Your task to perform on an android device: Show me the alarms in the clock app Image 0: 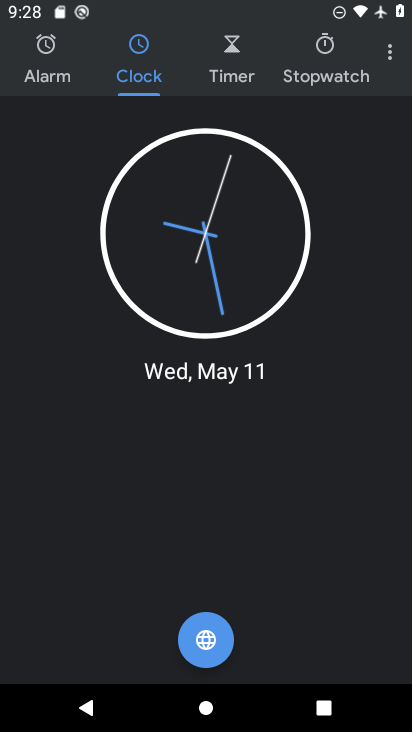
Step 0: press home button
Your task to perform on an android device: Show me the alarms in the clock app Image 1: 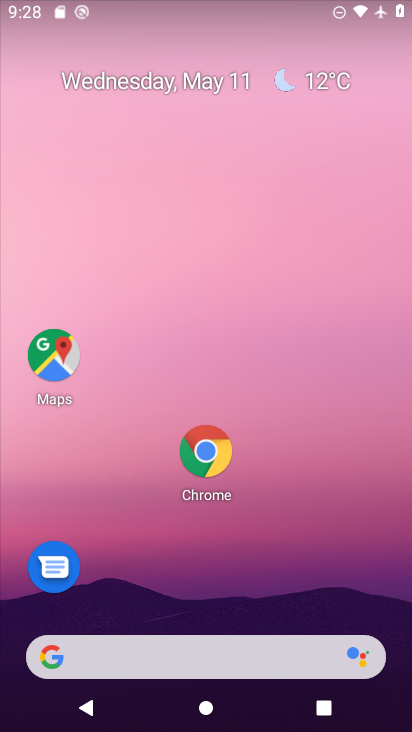
Step 1: drag from (151, 656) to (276, 121)
Your task to perform on an android device: Show me the alarms in the clock app Image 2: 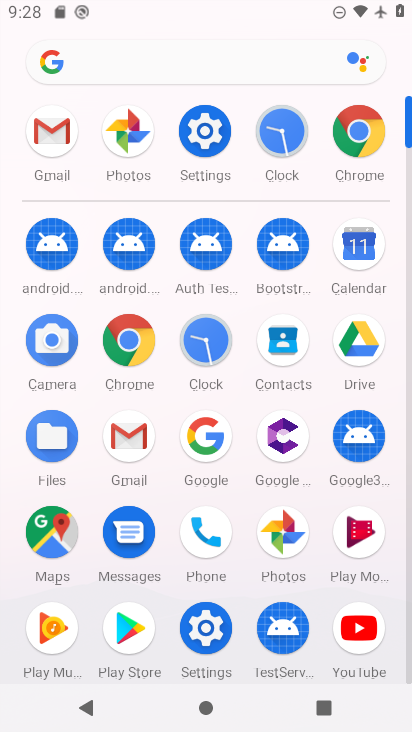
Step 2: click (282, 150)
Your task to perform on an android device: Show me the alarms in the clock app Image 3: 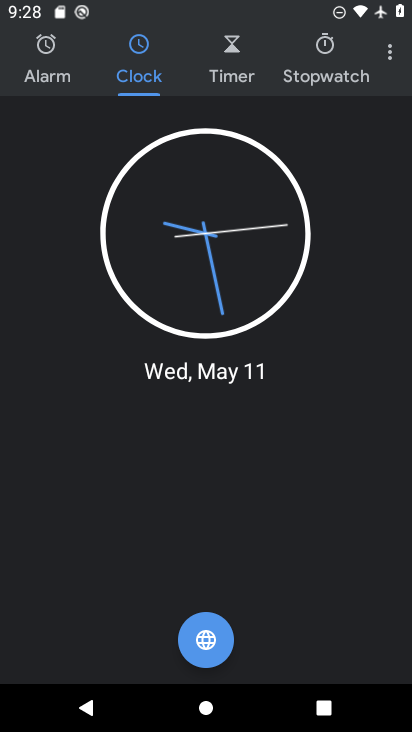
Step 3: click (57, 68)
Your task to perform on an android device: Show me the alarms in the clock app Image 4: 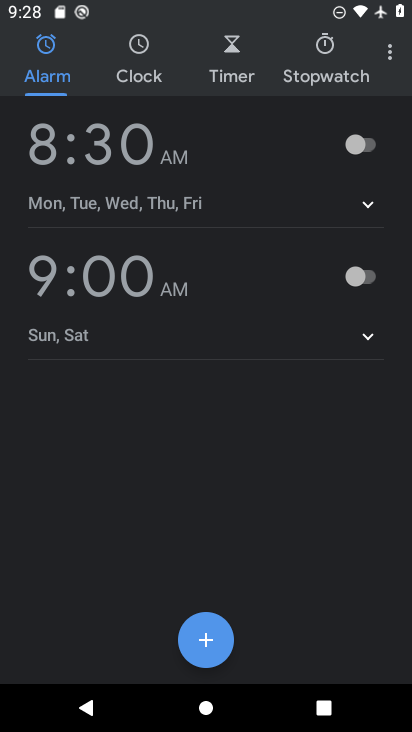
Step 4: task complete